Your task to perform on an android device: Go to Android settings Image 0: 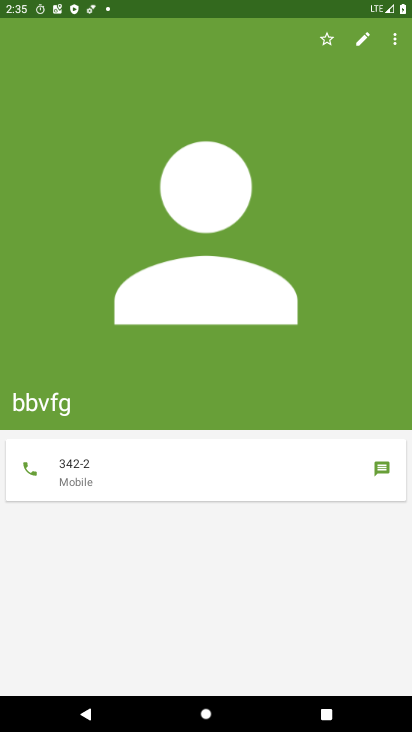
Step 0: press home button
Your task to perform on an android device: Go to Android settings Image 1: 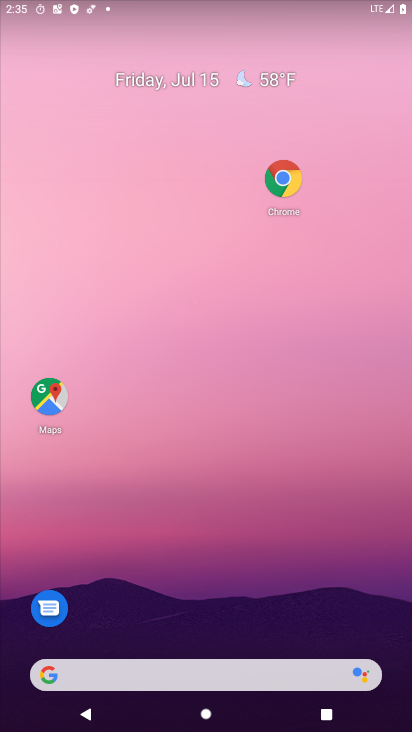
Step 1: drag from (240, 621) to (323, 86)
Your task to perform on an android device: Go to Android settings Image 2: 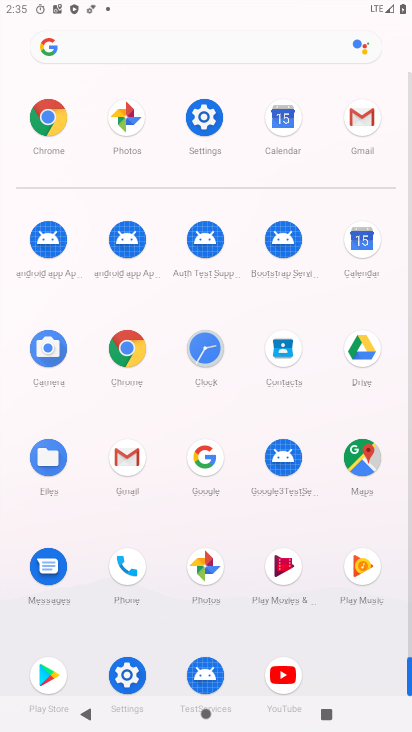
Step 2: click (117, 681)
Your task to perform on an android device: Go to Android settings Image 3: 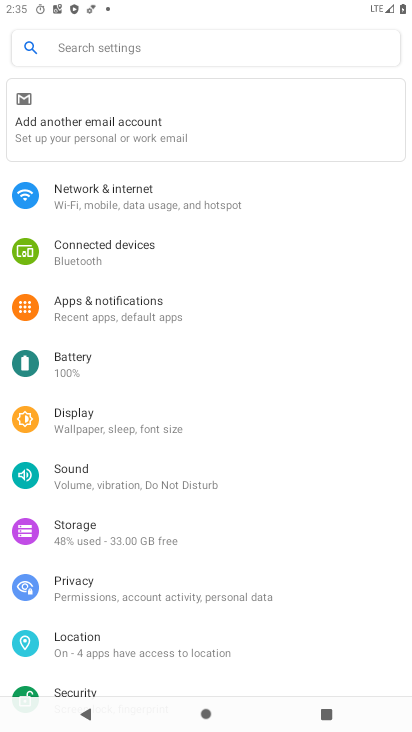
Step 3: drag from (230, 648) to (305, 233)
Your task to perform on an android device: Go to Android settings Image 4: 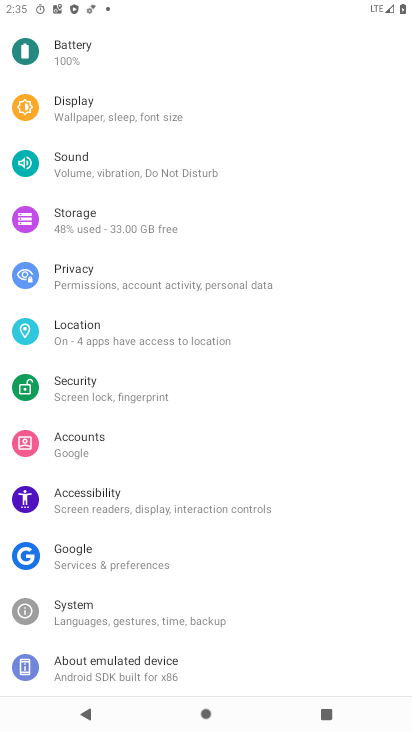
Step 4: click (135, 657)
Your task to perform on an android device: Go to Android settings Image 5: 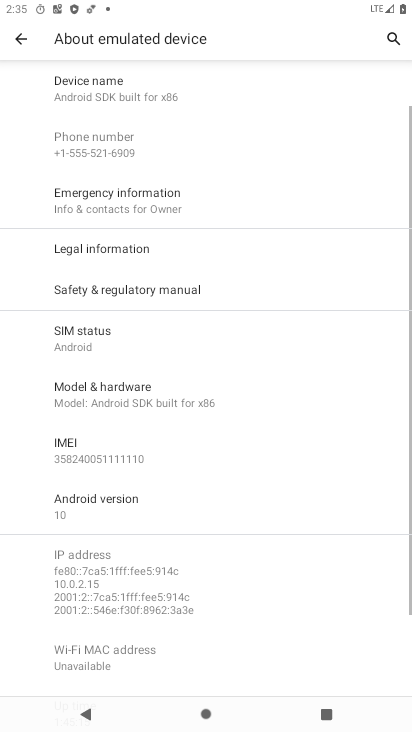
Step 5: drag from (225, 224) to (201, 517)
Your task to perform on an android device: Go to Android settings Image 6: 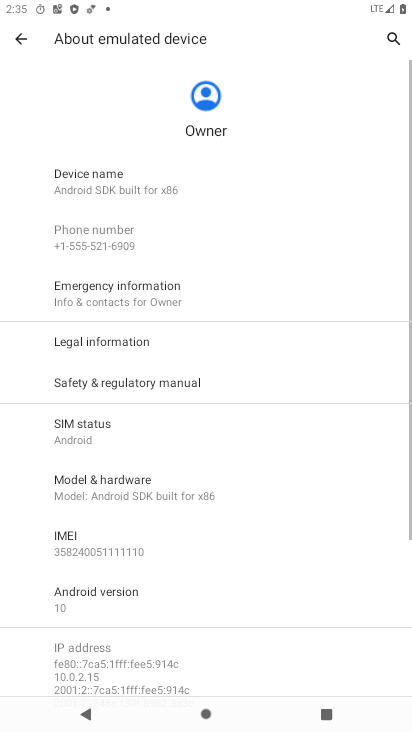
Step 6: click (107, 593)
Your task to perform on an android device: Go to Android settings Image 7: 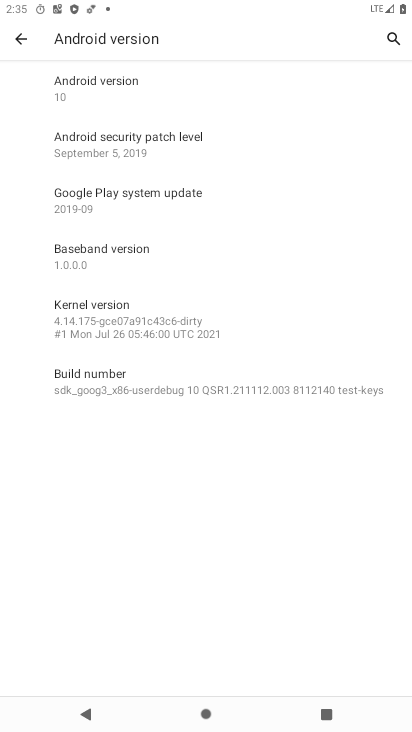
Step 7: task complete